Your task to perform on an android device: open app "Contacts" (install if not already installed) Image 0: 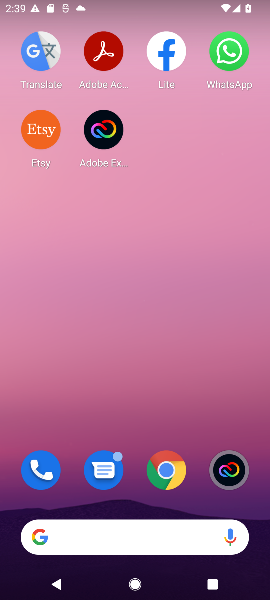
Step 0: drag from (126, 471) to (129, 224)
Your task to perform on an android device: open app "Contacts" (install if not already installed) Image 1: 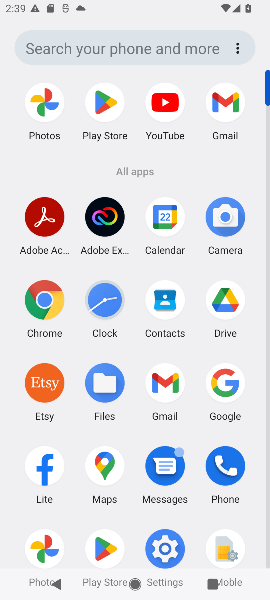
Step 1: click (99, 552)
Your task to perform on an android device: open app "Contacts" (install if not already installed) Image 2: 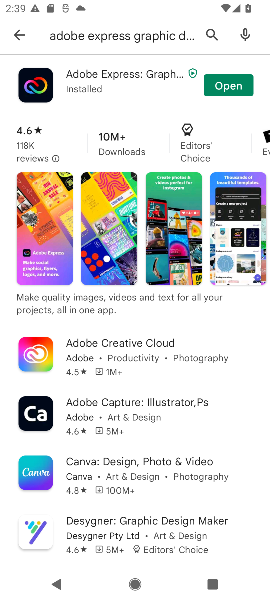
Step 2: click (16, 37)
Your task to perform on an android device: open app "Contacts" (install if not already installed) Image 3: 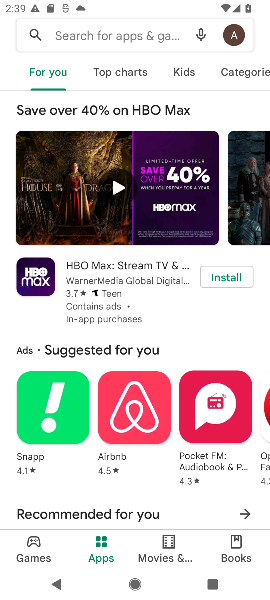
Step 3: click (88, 29)
Your task to perform on an android device: open app "Contacts" (install if not already installed) Image 4: 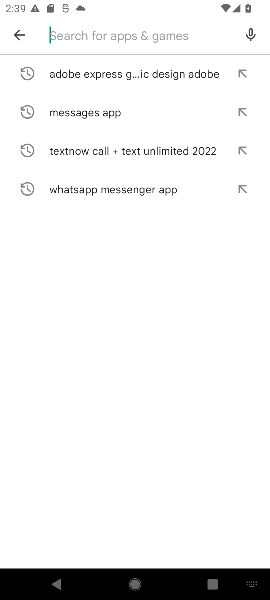
Step 4: type "contact "
Your task to perform on an android device: open app "Contacts" (install if not already installed) Image 5: 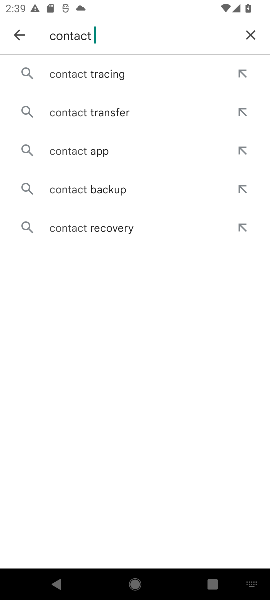
Step 5: click (85, 143)
Your task to perform on an android device: open app "Contacts" (install if not already installed) Image 6: 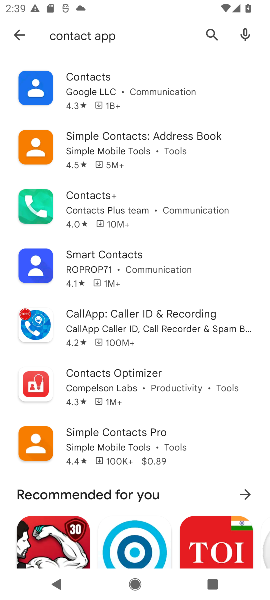
Step 6: click (135, 69)
Your task to perform on an android device: open app "Contacts" (install if not already installed) Image 7: 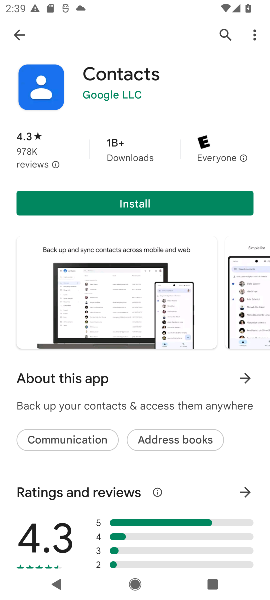
Step 7: click (162, 196)
Your task to perform on an android device: open app "Contacts" (install if not already installed) Image 8: 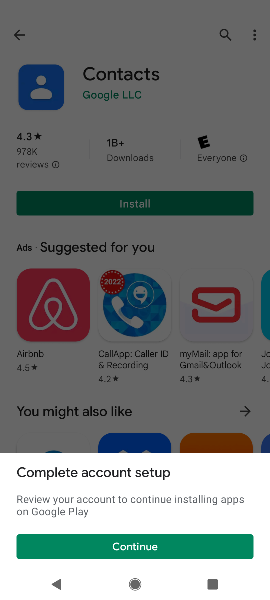
Step 8: task complete